Your task to perform on an android device: toggle show notifications on the lock screen Image 0: 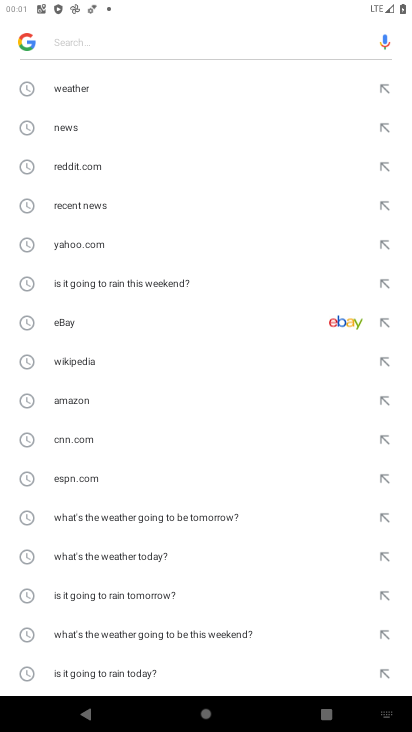
Step 0: press home button
Your task to perform on an android device: toggle show notifications on the lock screen Image 1: 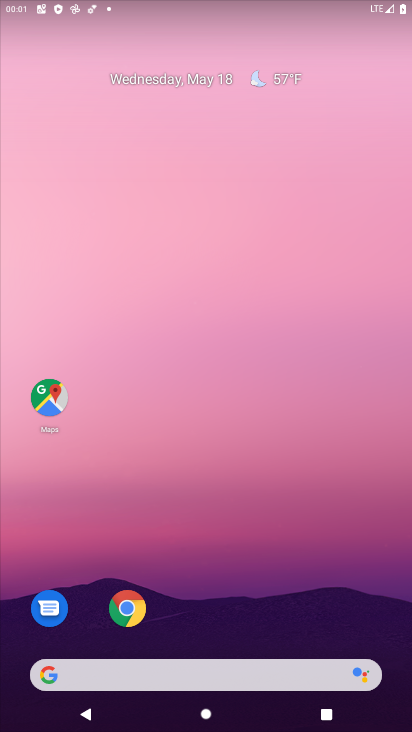
Step 1: drag from (190, 494) to (133, 104)
Your task to perform on an android device: toggle show notifications on the lock screen Image 2: 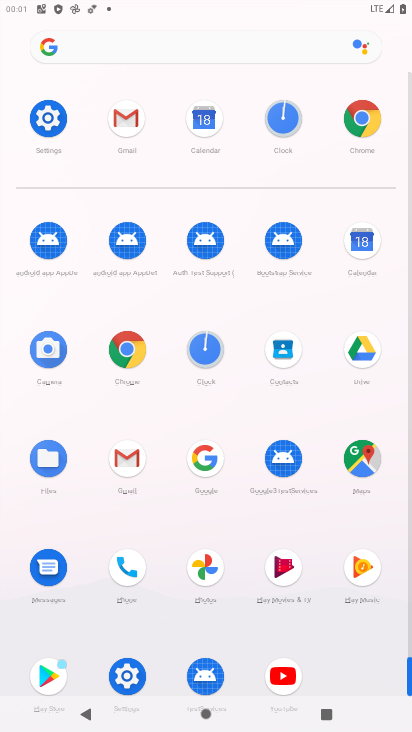
Step 2: click (50, 114)
Your task to perform on an android device: toggle show notifications on the lock screen Image 3: 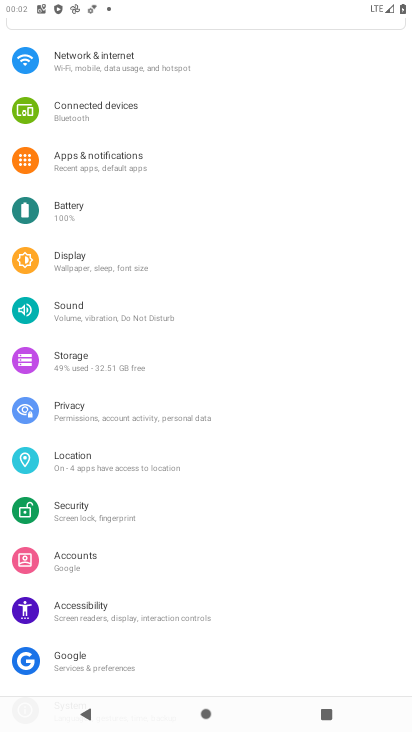
Step 3: click (121, 156)
Your task to perform on an android device: toggle show notifications on the lock screen Image 4: 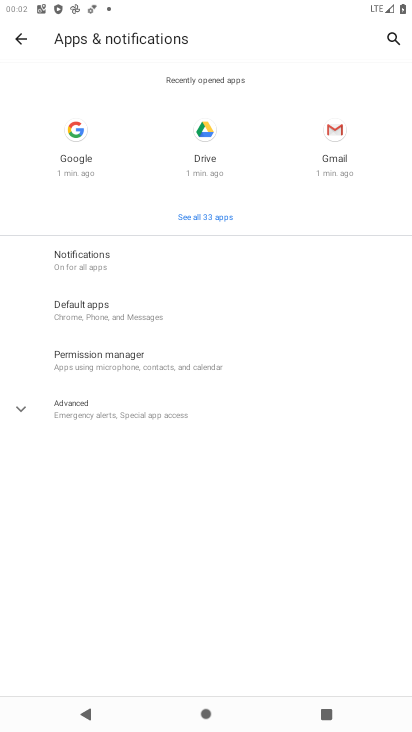
Step 4: click (86, 253)
Your task to perform on an android device: toggle show notifications on the lock screen Image 5: 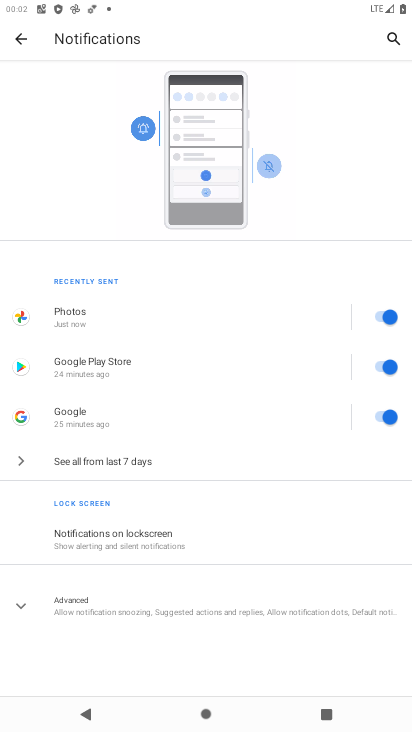
Step 5: click (135, 537)
Your task to perform on an android device: toggle show notifications on the lock screen Image 6: 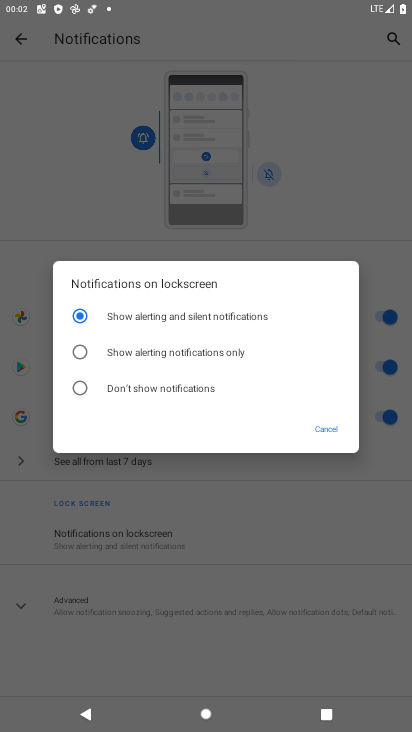
Step 6: click (78, 383)
Your task to perform on an android device: toggle show notifications on the lock screen Image 7: 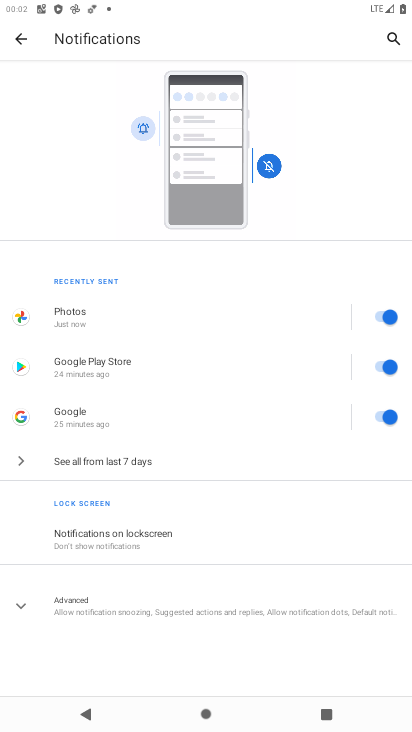
Step 7: task complete